Your task to perform on an android device: Open Google Maps Image 0: 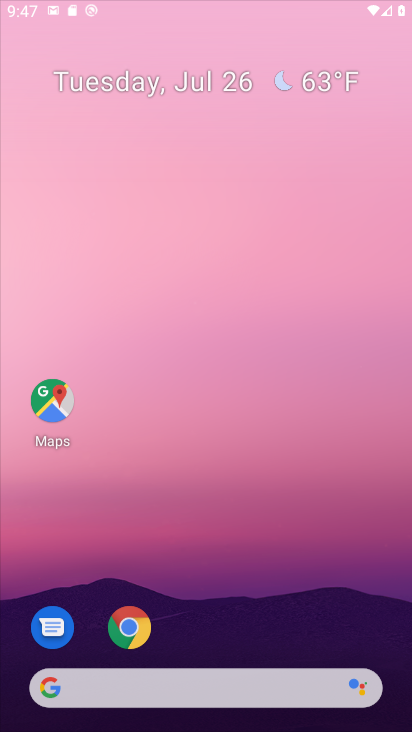
Step 0: press home button
Your task to perform on an android device: Open Google Maps Image 1: 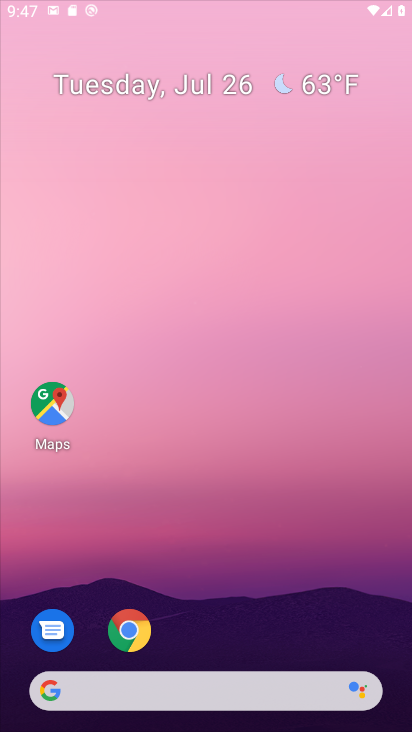
Step 1: drag from (213, 652) to (209, 38)
Your task to perform on an android device: Open Google Maps Image 2: 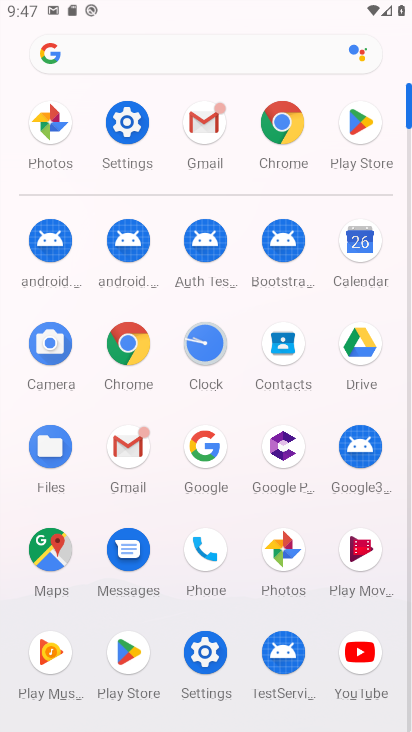
Step 2: click (50, 549)
Your task to perform on an android device: Open Google Maps Image 3: 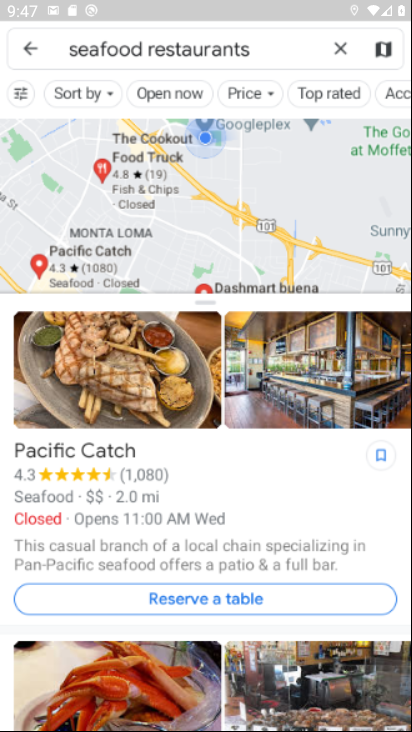
Step 3: click (336, 50)
Your task to perform on an android device: Open Google Maps Image 4: 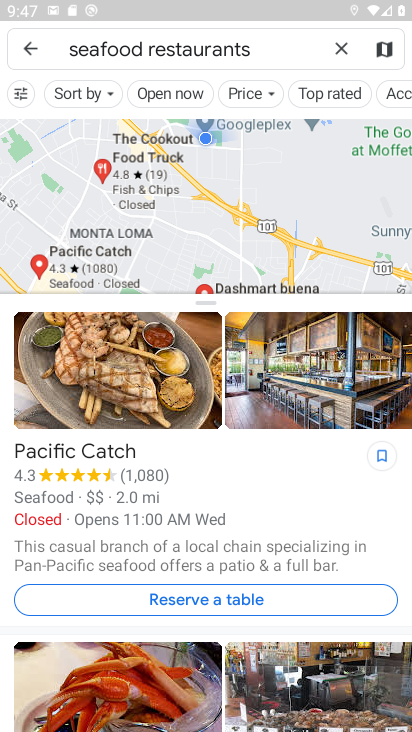
Step 4: click (338, 56)
Your task to perform on an android device: Open Google Maps Image 5: 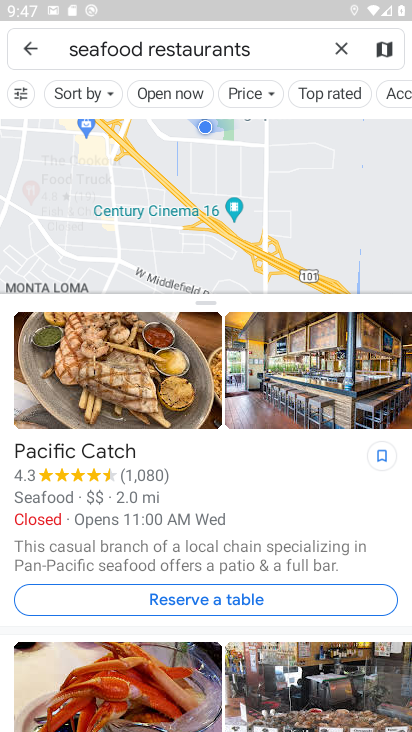
Step 5: click (31, 49)
Your task to perform on an android device: Open Google Maps Image 6: 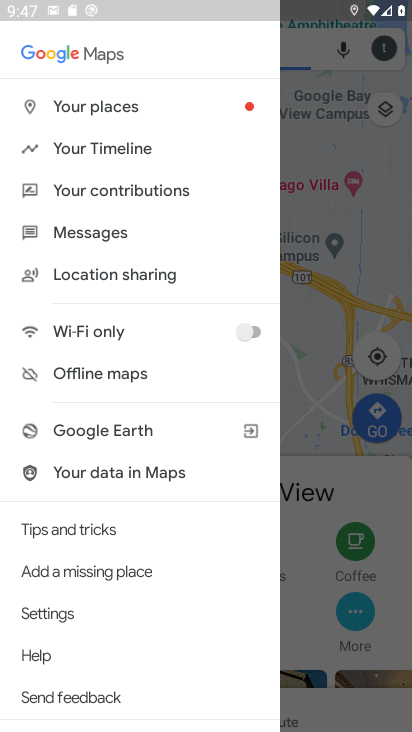
Step 6: click (301, 331)
Your task to perform on an android device: Open Google Maps Image 7: 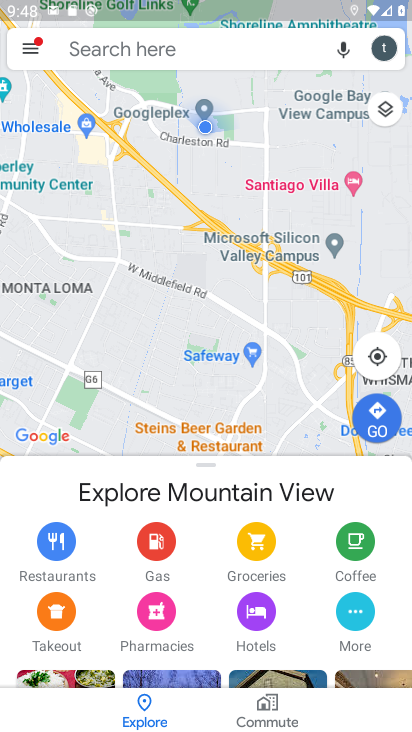
Step 7: task complete